Your task to perform on an android device: check google app version Image 0: 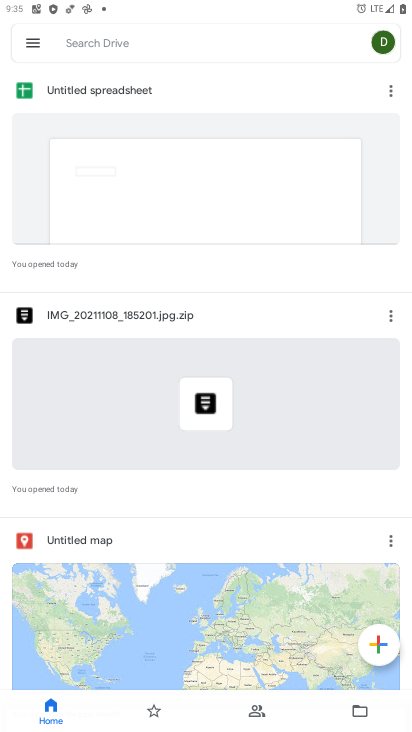
Step 0: press home button
Your task to perform on an android device: check google app version Image 1: 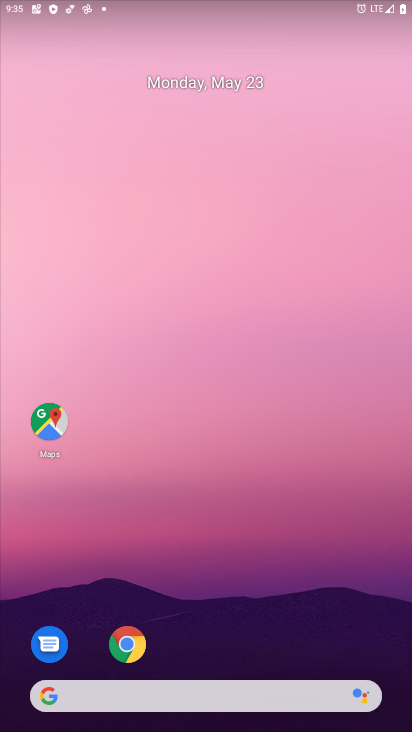
Step 1: drag from (208, 730) to (246, 81)
Your task to perform on an android device: check google app version Image 2: 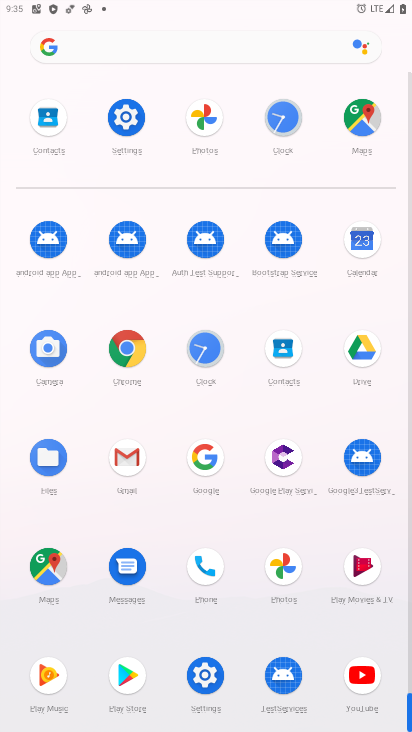
Step 2: click (192, 460)
Your task to perform on an android device: check google app version Image 3: 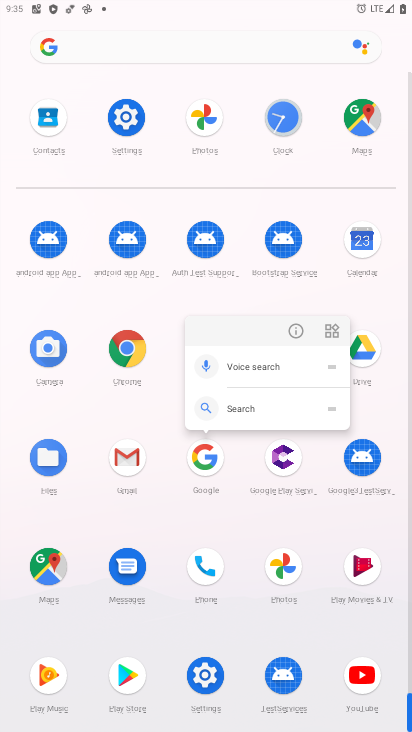
Step 3: click (284, 319)
Your task to perform on an android device: check google app version Image 4: 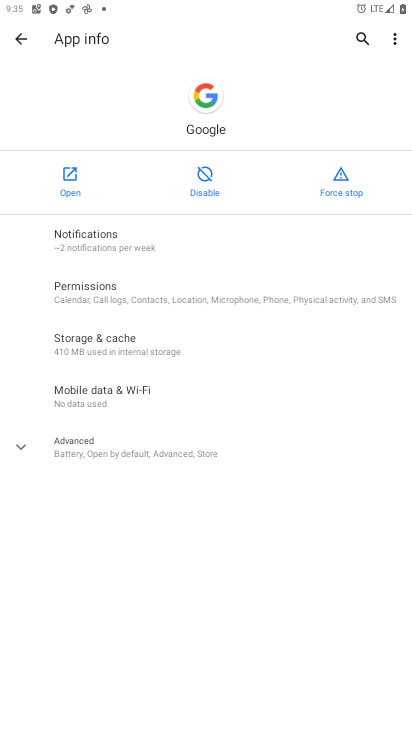
Step 4: click (184, 438)
Your task to perform on an android device: check google app version Image 5: 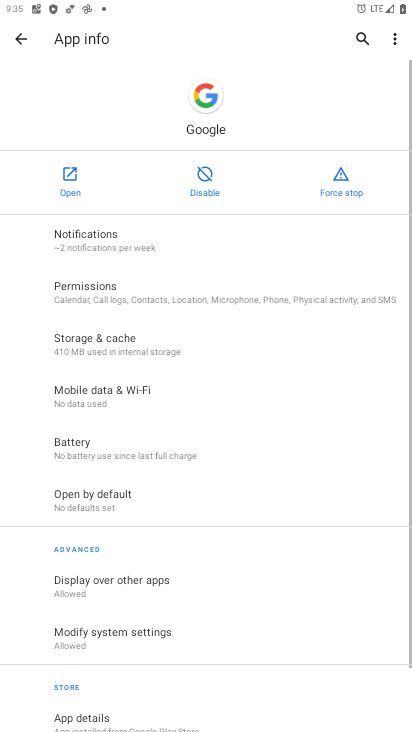
Step 5: task complete